Your task to perform on an android device: Show me the alarms in the clock app Image 0: 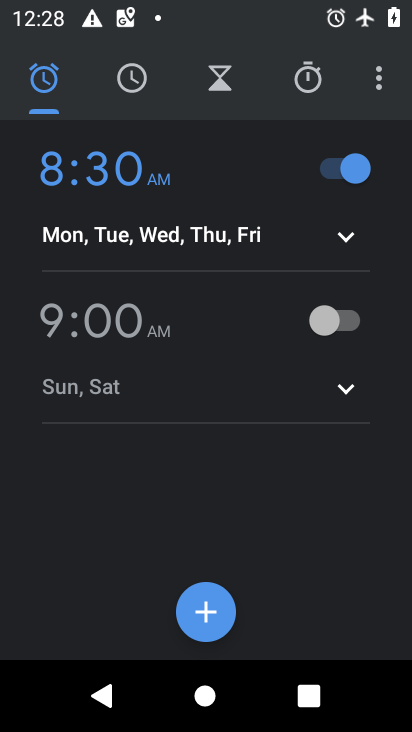
Step 0: task complete